Your task to perform on an android device: turn on bluetooth scan Image 0: 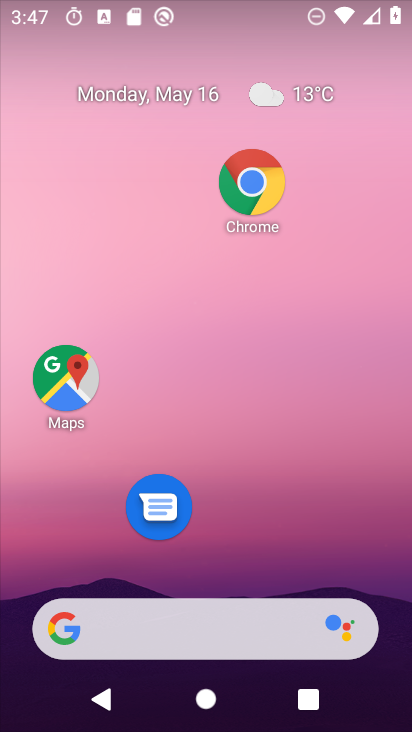
Step 0: drag from (232, 555) to (222, 158)
Your task to perform on an android device: turn on bluetooth scan Image 1: 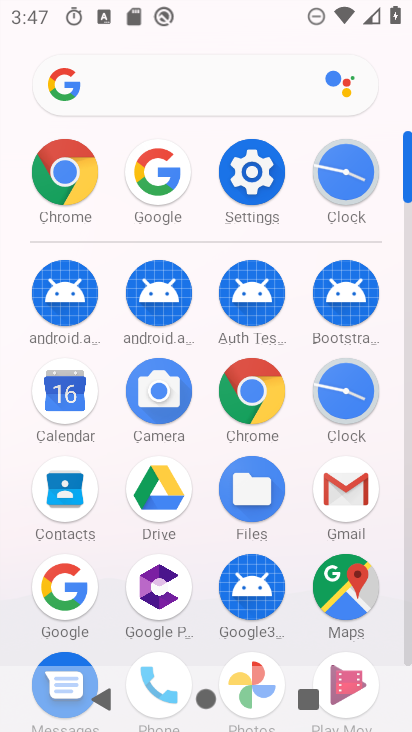
Step 1: click (271, 201)
Your task to perform on an android device: turn on bluetooth scan Image 2: 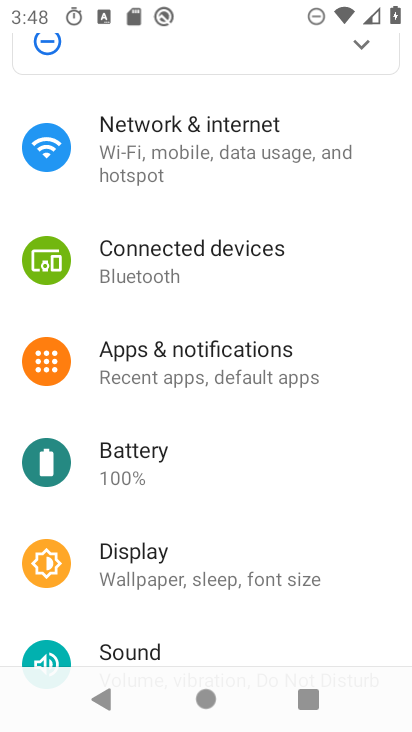
Step 2: drag from (251, 565) to (270, 231)
Your task to perform on an android device: turn on bluetooth scan Image 3: 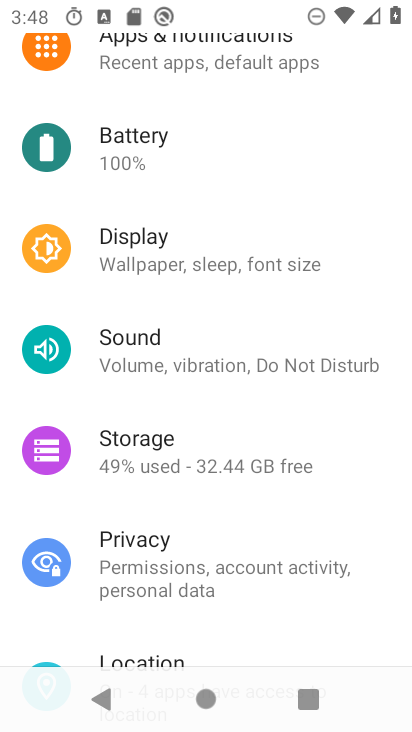
Step 3: drag from (254, 295) to (279, 622)
Your task to perform on an android device: turn on bluetooth scan Image 4: 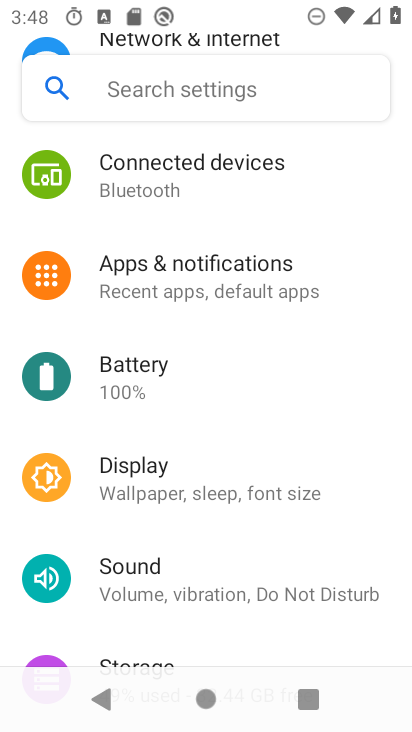
Step 4: drag from (290, 295) to (309, 581)
Your task to perform on an android device: turn on bluetooth scan Image 5: 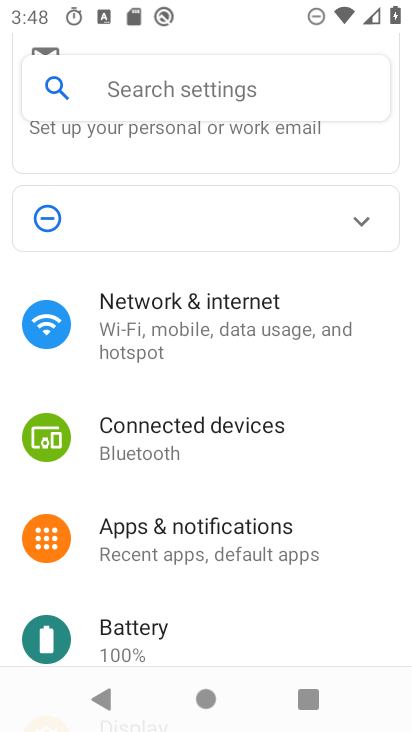
Step 5: drag from (284, 592) to (298, 152)
Your task to perform on an android device: turn on bluetooth scan Image 6: 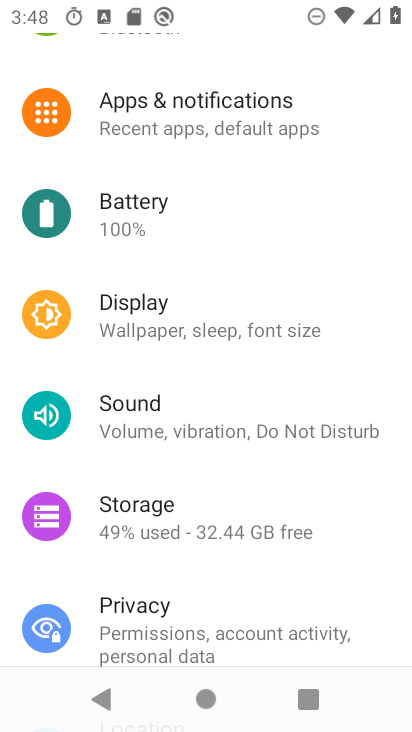
Step 6: drag from (242, 552) to (285, 272)
Your task to perform on an android device: turn on bluetooth scan Image 7: 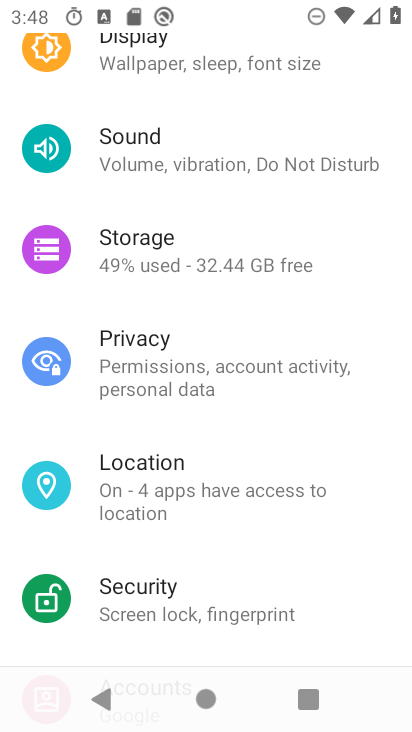
Step 7: click (267, 488)
Your task to perform on an android device: turn on bluetooth scan Image 8: 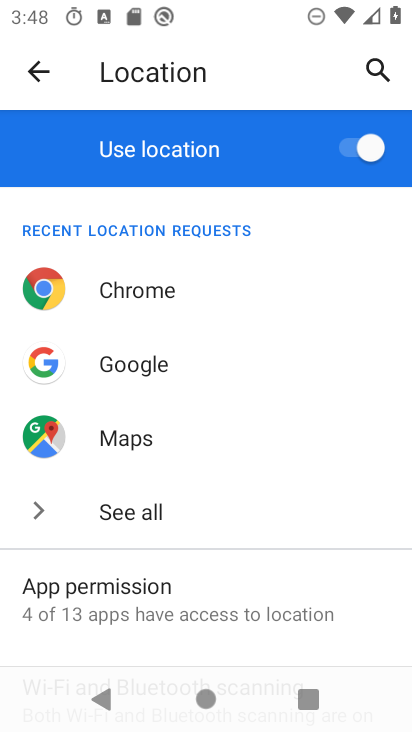
Step 8: drag from (239, 626) to (309, 168)
Your task to perform on an android device: turn on bluetooth scan Image 9: 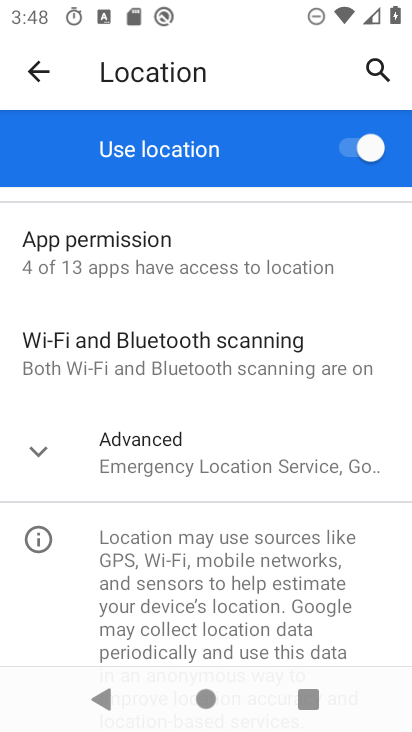
Step 9: click (288, 460)
Your task to perform on an android device: turn on bluetooth scan Image 10: 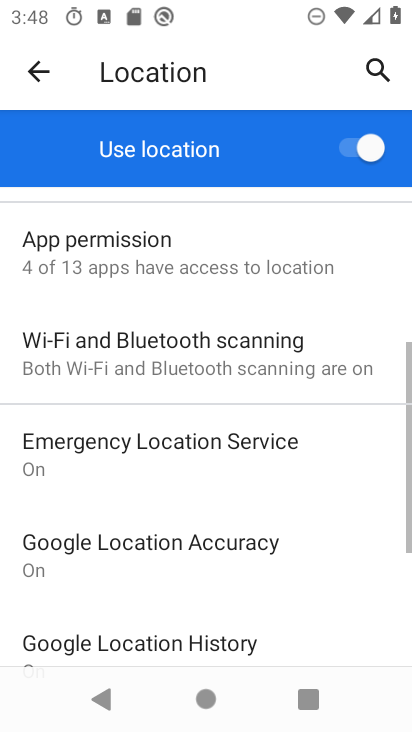
Step 10: drag from (302, 585) to (302, 668)
Your task to perform on an android device: turn on bluetooth scan Image 11: 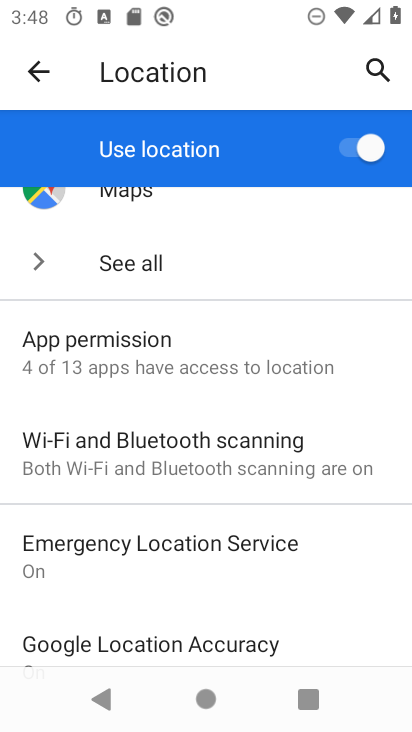
Step 11: drag from (311, 327) to (240, 731)
Your task to perform on an android device: turn on bluetooth scan Image 12: 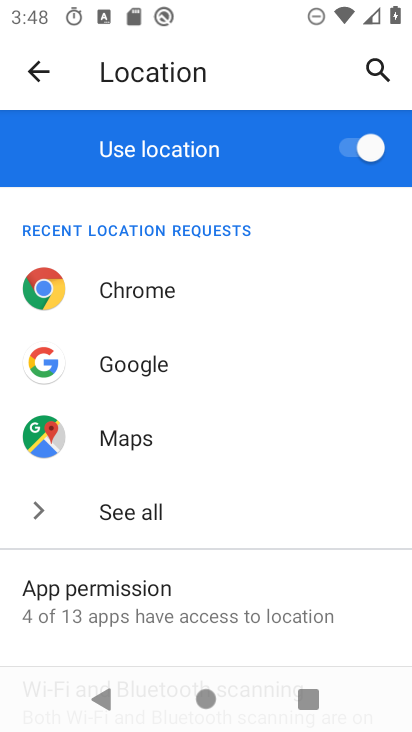
Step 12: drag from (181, 564) to (244, 214)
Your task to perform on an android device: turn on bluetooth scan Image 13: 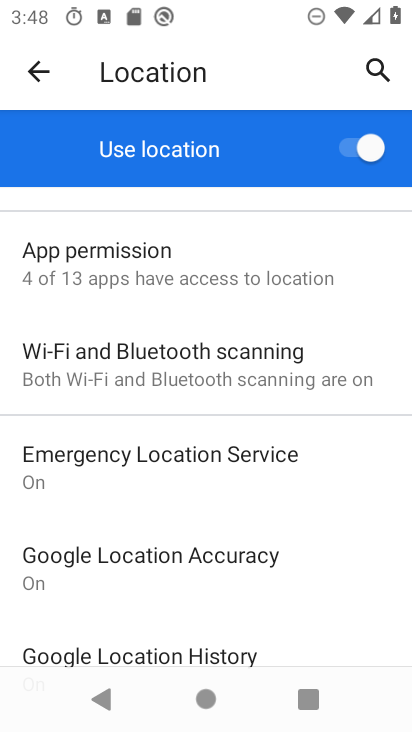
Step 13: click (252, 389)
Your task to perform on an android device: turn on bluetooth scan Image 14: 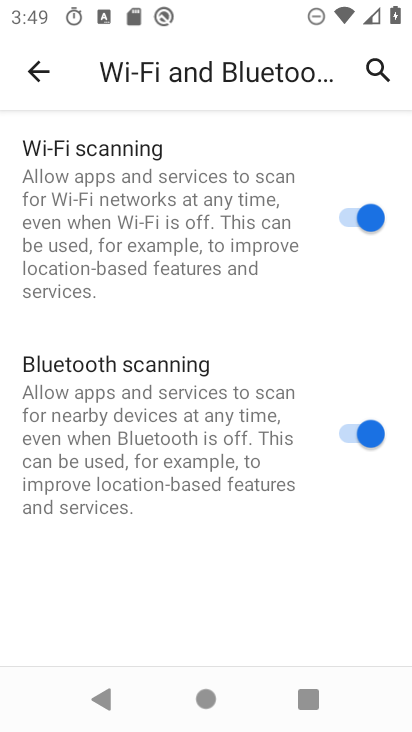
Step 14: task complete